Your task to perform on an android device: clear history in the chrome app Image 0: 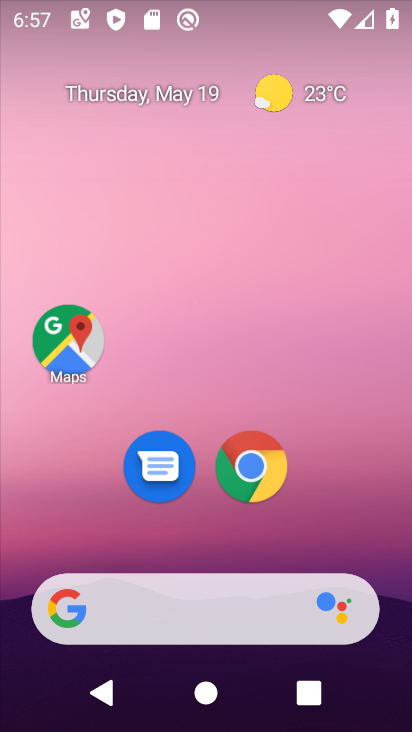
Step 0: click (246, 470)
Your task to perform on an android device: clear history in the chrome app Image 1: 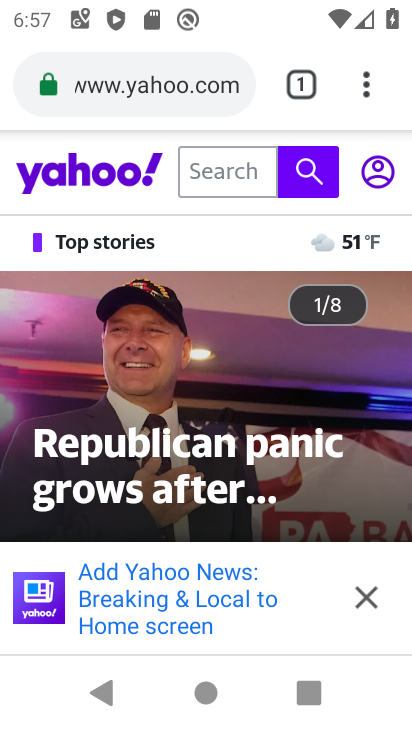
Step 1: click (348, 104)
Your task to perform on an android device: clear history in the chrome app Image 2: 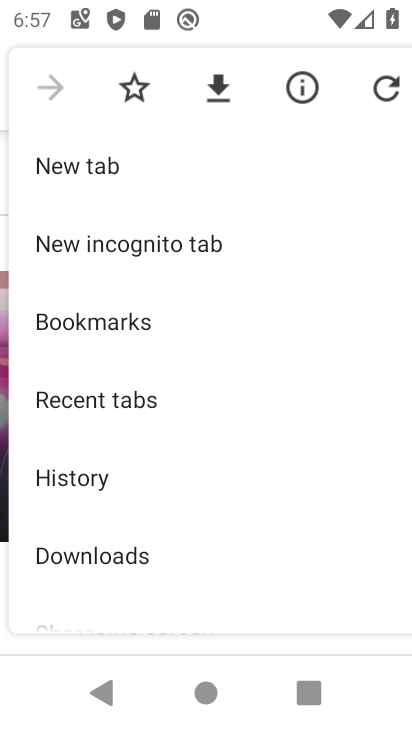
Step 2: click (90, 484)
Your task to perform on an android device: clear history in the chrome app Image 3: 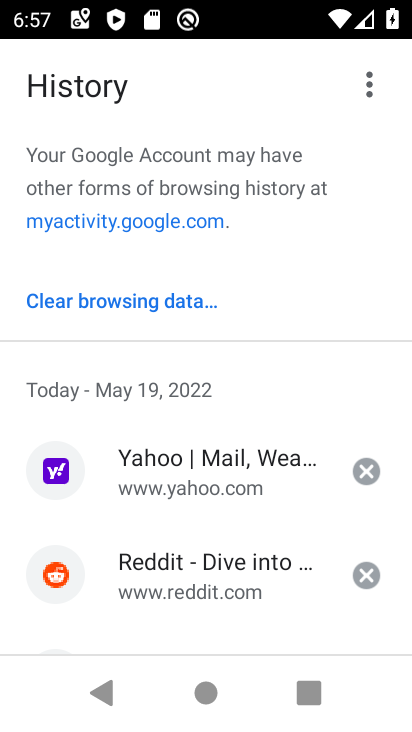
Step 3: click (133, 288)
Your task to perform on an android device: clear history in the chrome app Image 4: 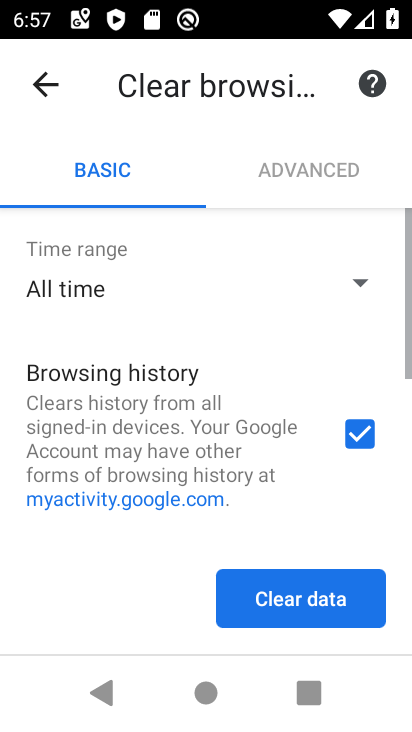
Step 4: click (331, 614)
Your task to perform on an android device: clear history in the chrome app Image 5: 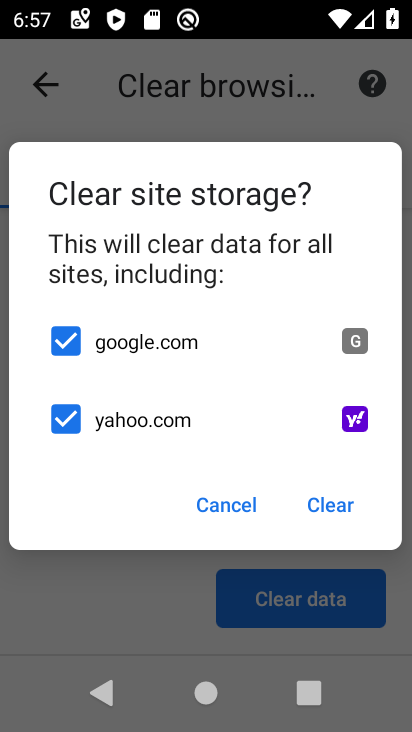
Step 5: click (323, 508)
Your task to perform on an android device: clear history in the chrome app Image 6: 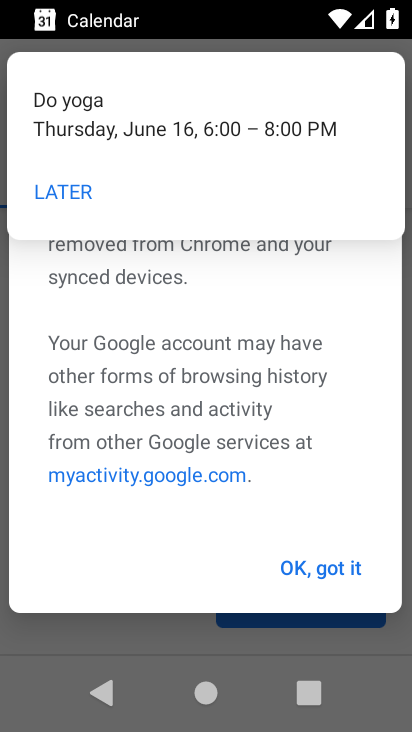
Step 6: click (310, 579)
Your task to perform on an android device: clear history in the chrome app Image 7: 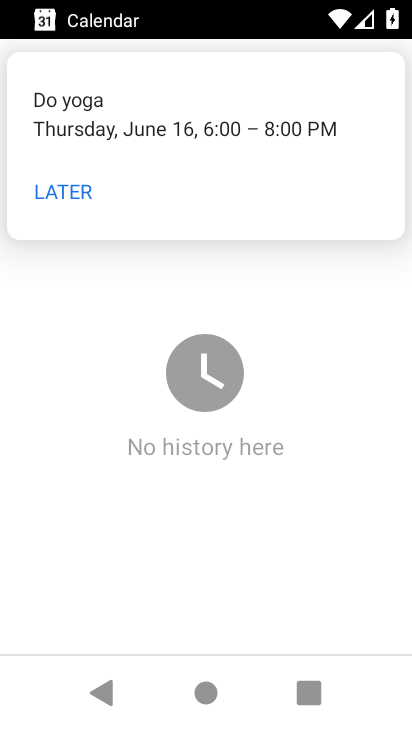
Step 7: task complete